Your task to perform on an android device: Search for flights from Mexico city to Boston Image 0: 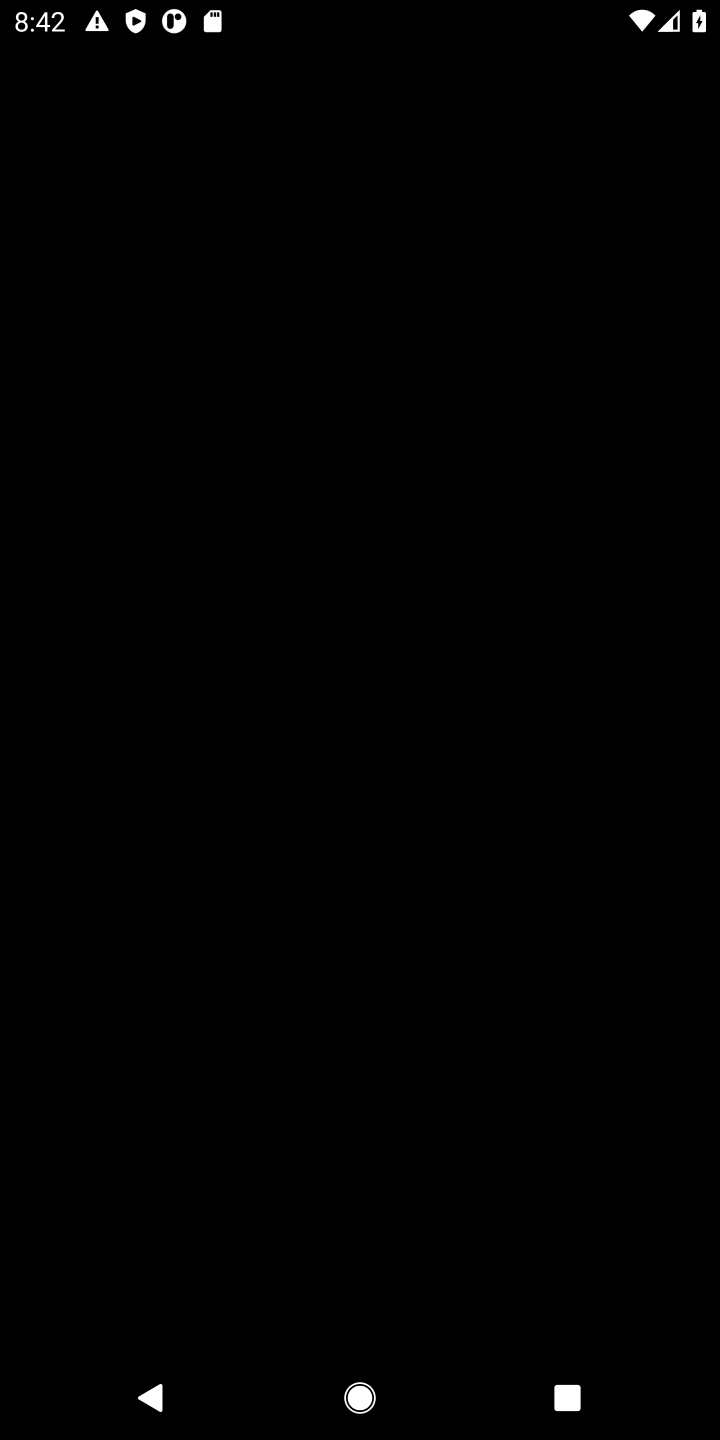
Step 0: press home button
Your task to perform on an android device: Search for flights from Mexico city to Boston Image 1: 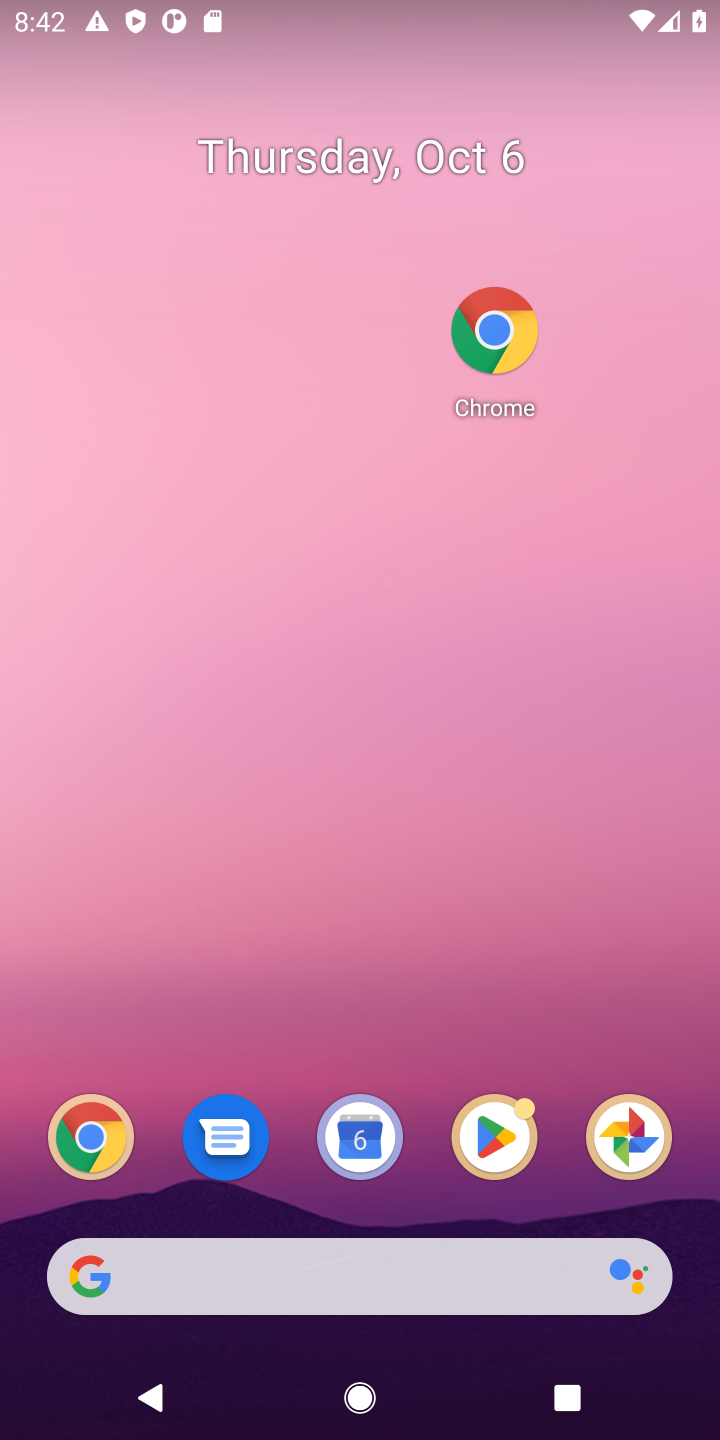
Step 1: click (494, 332)
Your task to perform on an android device: Search for flights from Mexico city to Boston Image 2: 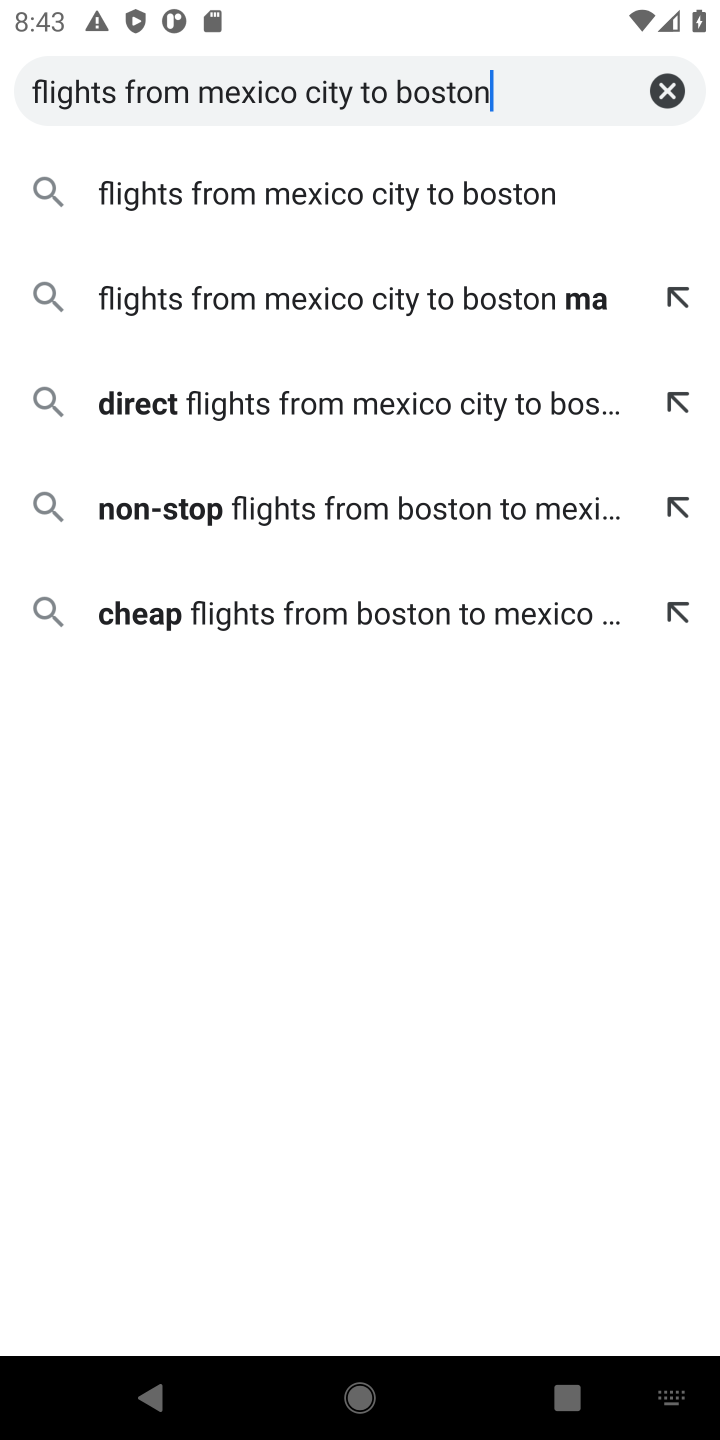
Step 2: click (518, 198)
Your task to perform on an android device: Search for flights from Mexico city to Boston Image 3: 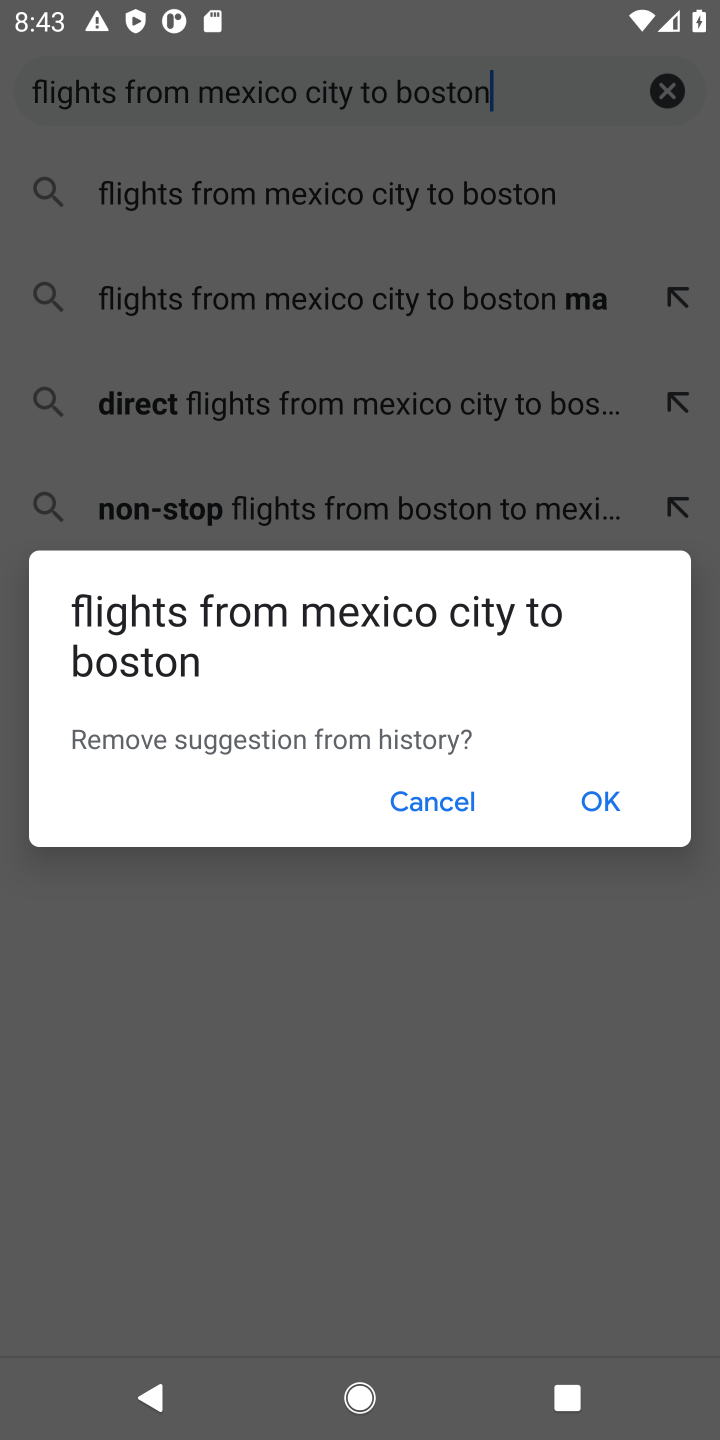
Step 3: click (452, 810)
Your task to perform on an android device: Search for flights from Mexico city to Boston Image 4: 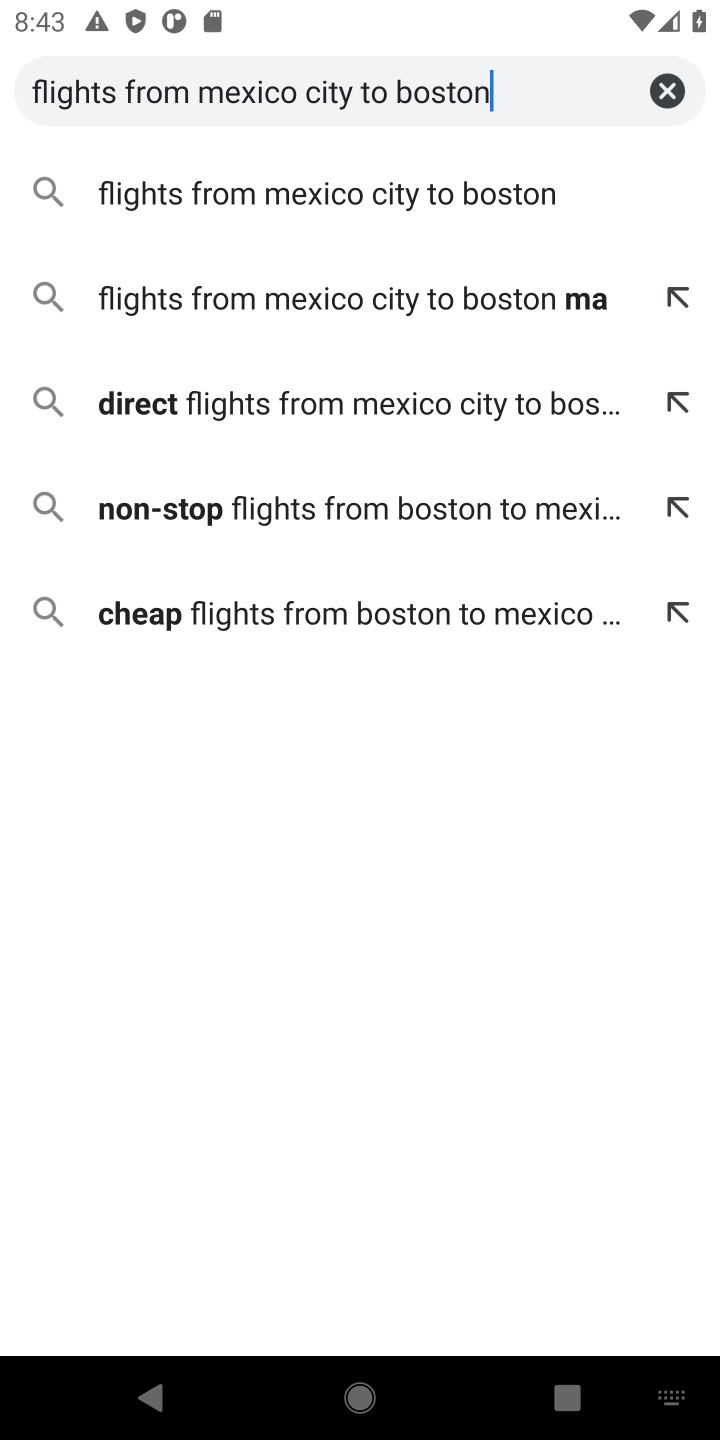
Step 4: click (235, 200)
Your task to perform on an android device: Search for flights from Mexico city to Boston Image 5: 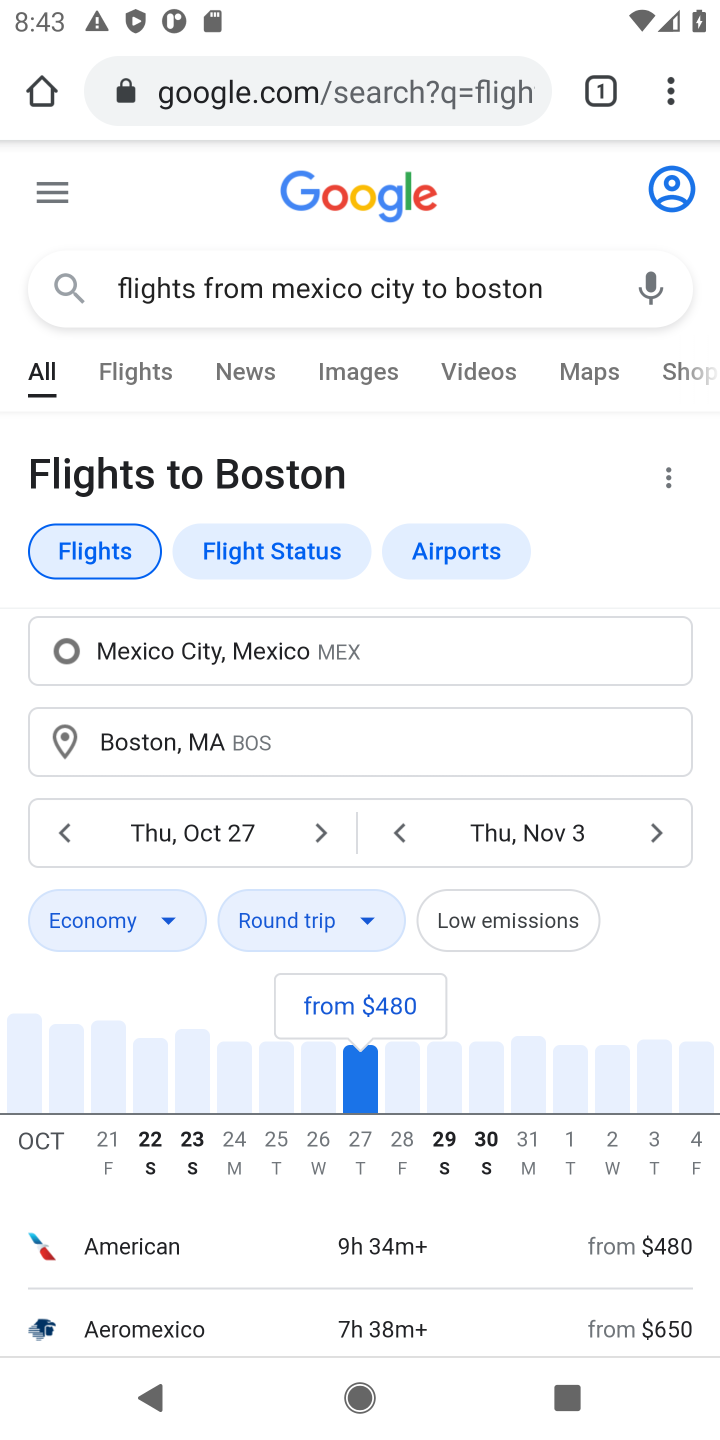
Step 5: task complete